Your task to perform on an android device: turn off data saver in the chrome app Image 0: 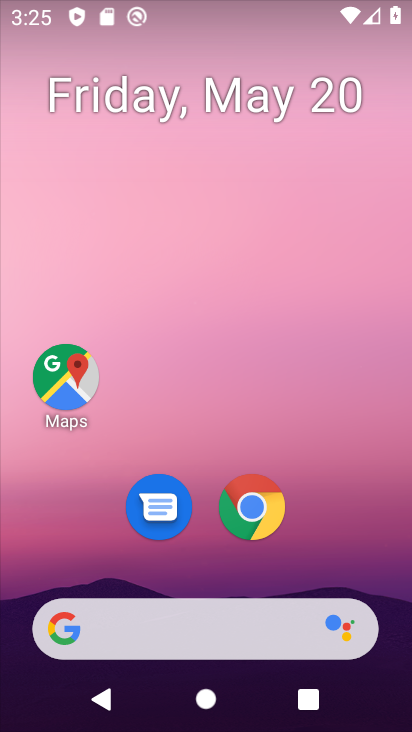
Step 0: click (252, 504)
Your task to perform on an android device: turn off data saver in the chrome app Image 1: 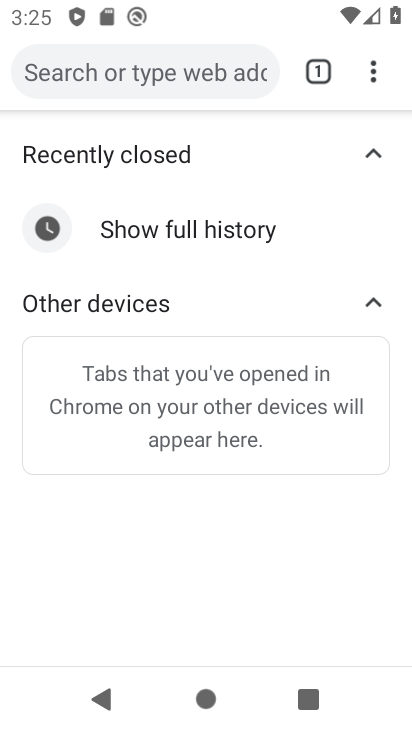
Step 1: click (371, 71)
Your task to perform on an android device: turn off data saver in the chrome app Image 2: 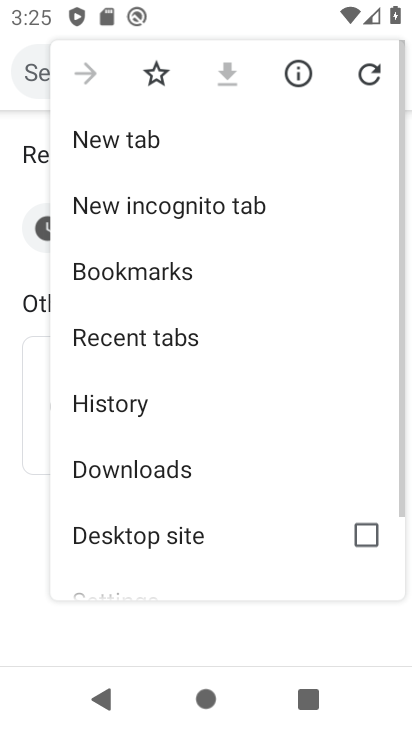
Step 2: click (371, 71)
Your task to perform on an android device: turn off data saver in the chrome app Image 3: 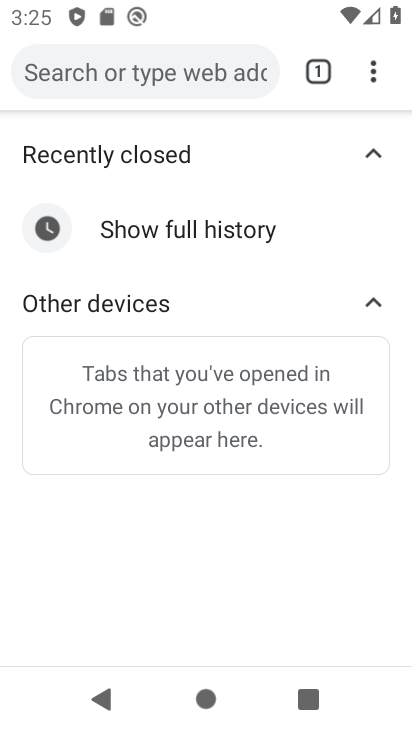
Step 3: click (375, 72)
Your task to perform on an android device: turn off data saver in the chrome app Image 4: 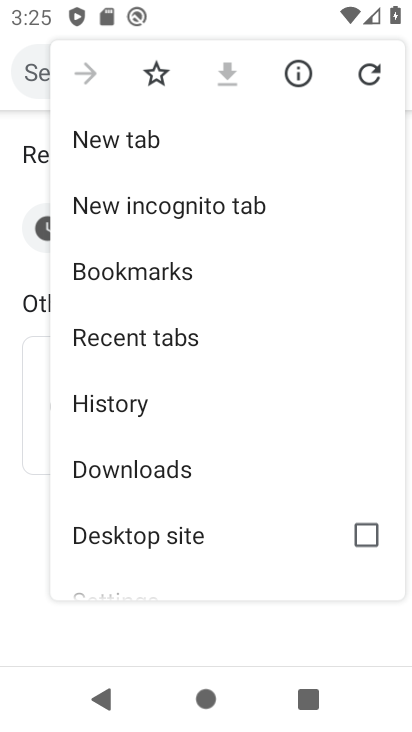
Step 4: drag from (161, 479) to (266, 358)
Your task to perform on an android device: turn off data saver in the chrome app Image 5: 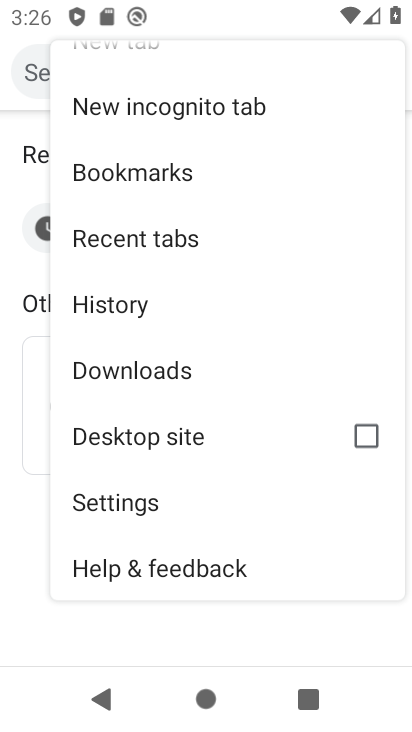
Step 5: click (134, 500)
Your task to perform on an android device: turn off data saver in the chrome app Image 6: 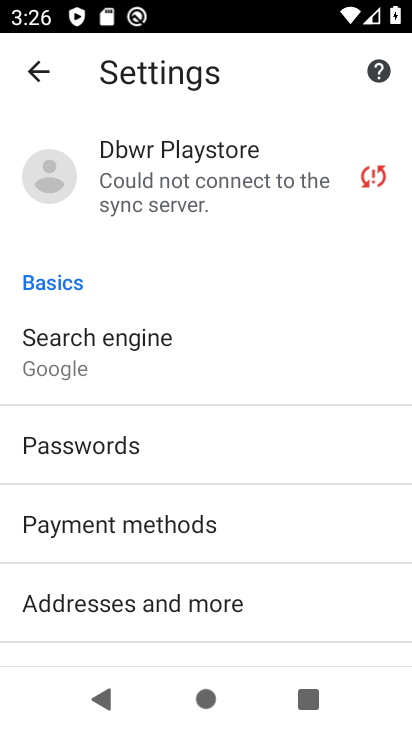
Step 6: drag from (135, 506) to (202, 358)
Your task to perform on an android device: turn off data saver in the chrome app Image 7: 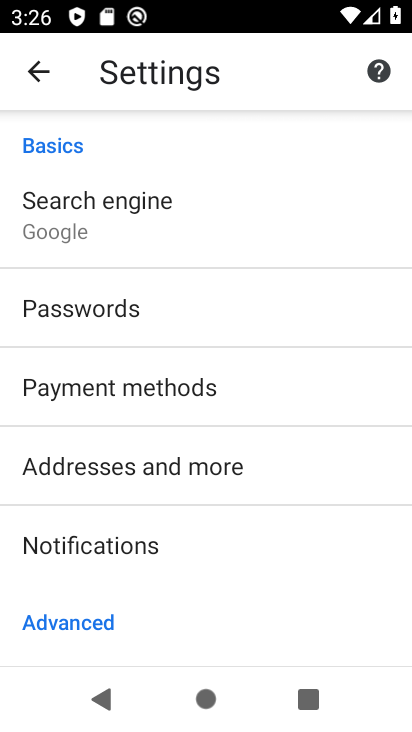
Step 7: drag from (105, 485) to (185, 380)
Your task to perform on an android device: turn off data saver in the chrome app Image 8: 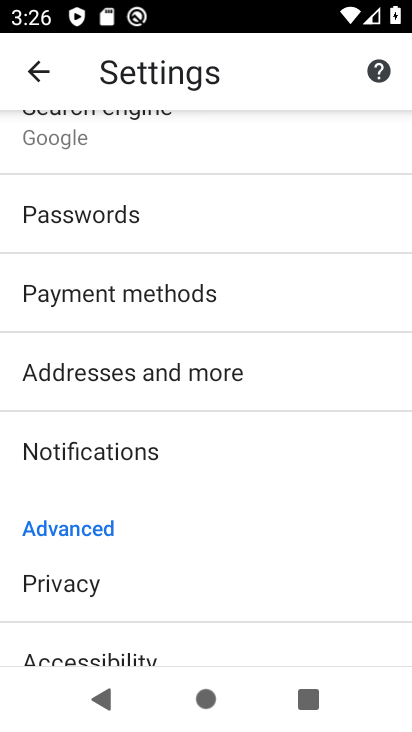
Step 8: drag from (93, 482) to (185, 348)
Your task to perform on an android device: turn off data saver in the chrome app Image 9: 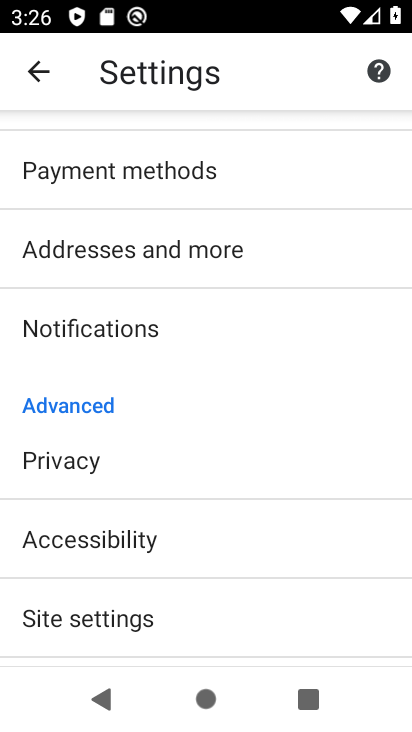
Step 9: drag from (87, 487) to (172, 376)
Your task to perform on an android device: turn off data saver in the chrome app Image 10: 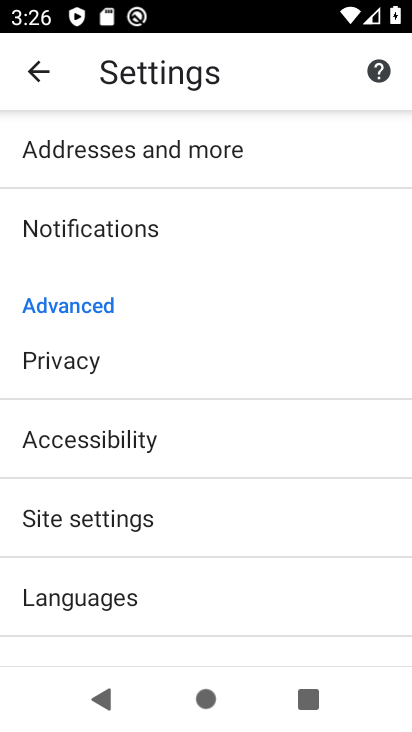
Step 10: drag from (74, 534) to (127, 418)
Your task to perform on an android device: turn off data saver in the chrome app Image 11: 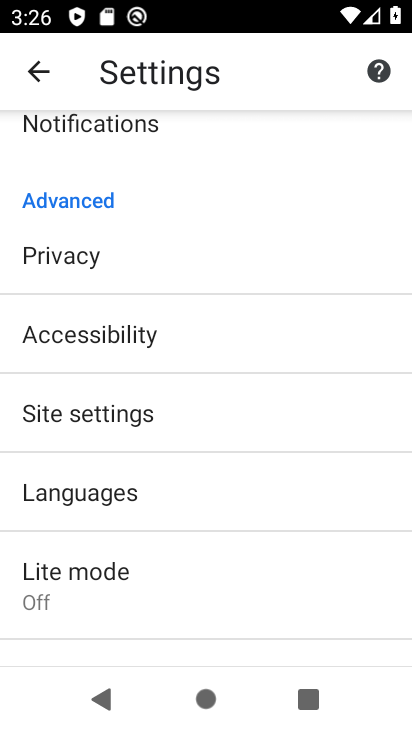
Step 11: click (95, 580)
Your task to perform on an android device: turn off data saver in the chrome app Image 12: 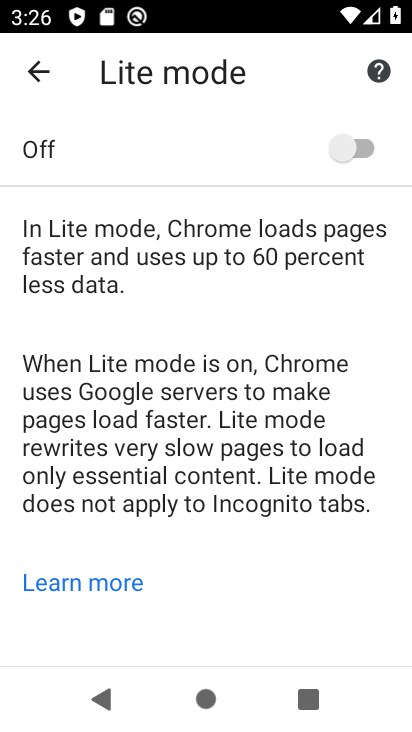
Step 12: task complete